Your task to perform on an android device: Show me productivity apps on the Play Store Image 0: 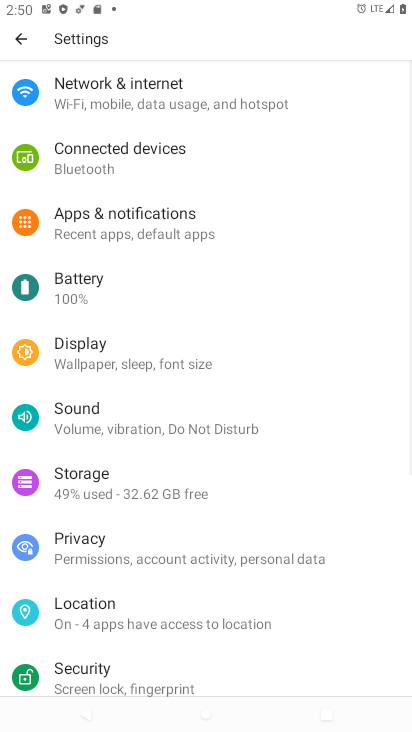
Step 0: press home button
Your task to perform on an android device: Show me productivity apps on the Play Store Image 1: 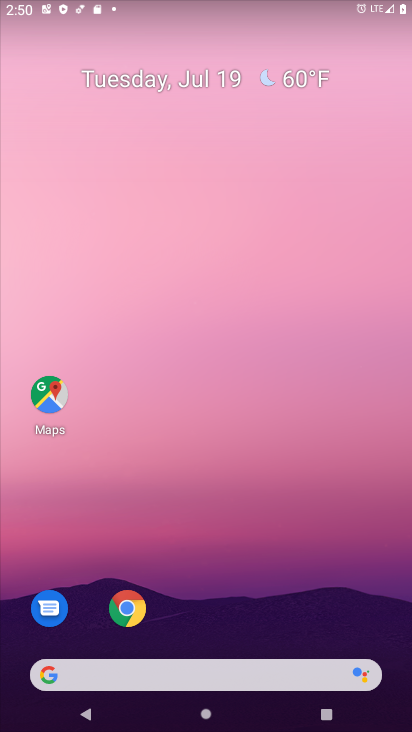
Step 1: drag from (216, 595) to (274, 23)
Your task to perform on an android device: Show me productivity apps on the Play Store Image 2: 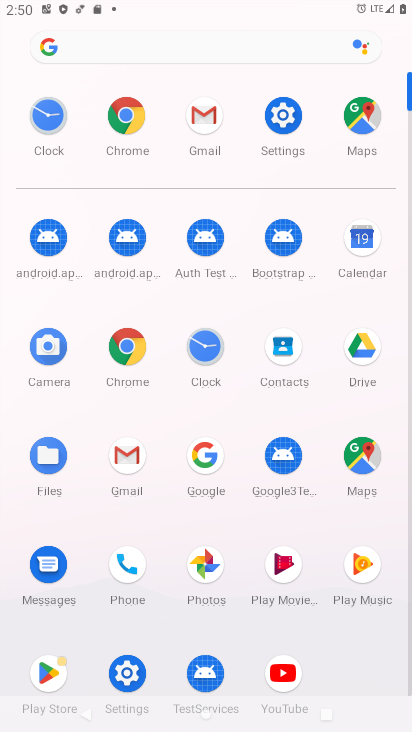
Step 2: click (43, 676)
Your task to perform on an android device: Show me productivity apps on the Play Store Image 3: 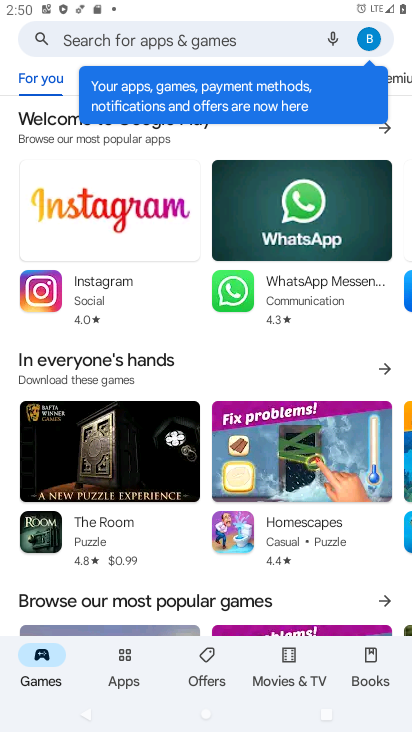
Step 3: click (183, 43)
Your task to perform on an android device: Show me productivity apps on the Play Store Image 4: 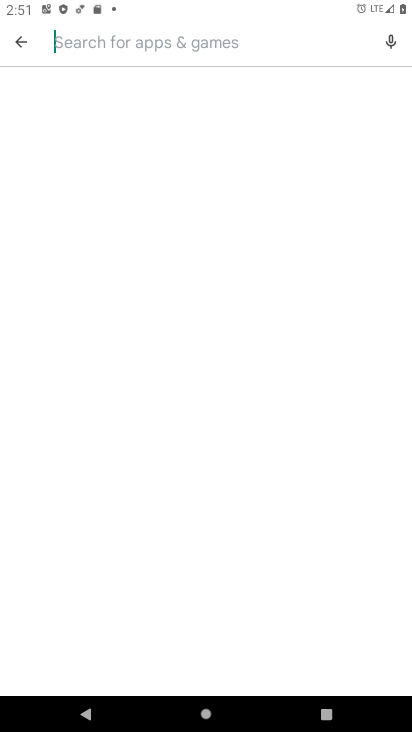
Step 4: type "productivity apps "
Your task to perform on an android device: Show me productivity apps on the Play Store Image 5: 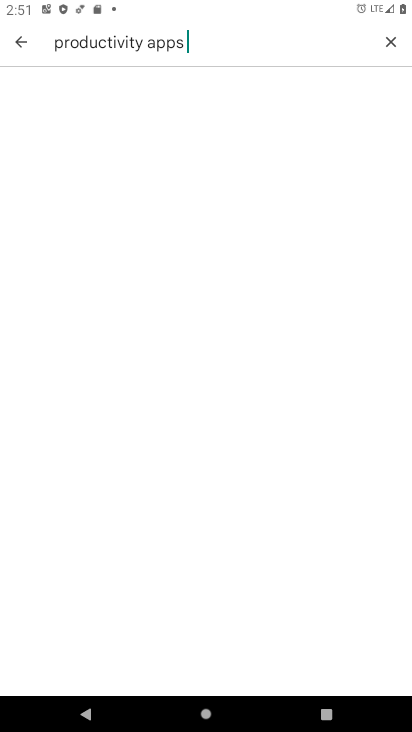
Step 5: press enter
Your task to perform on an android device: Show me productivity apps on the Play Store Image 6: 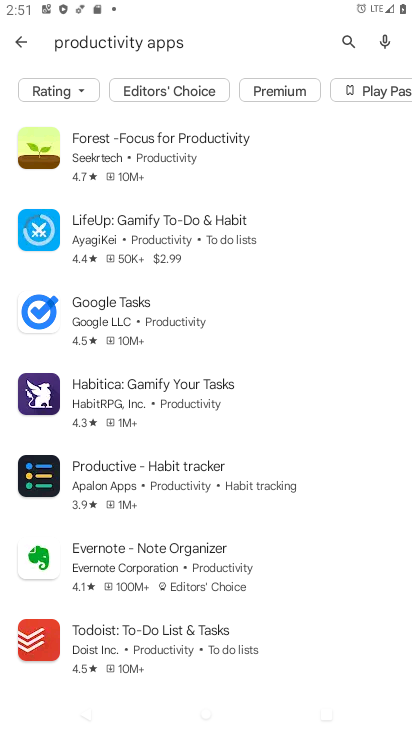
Step 6: task complete